Your task to perform on an android device: see tabs open on other devices in the chrome app Image 0: 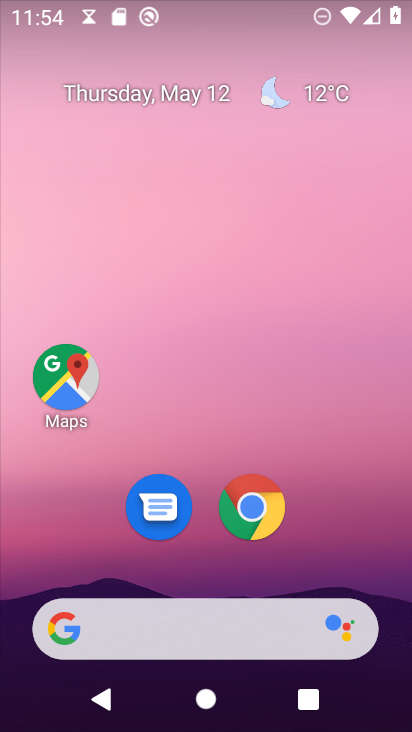
Step 0: click (257, 518)
Your task to perform on an android device: see tabs open on other devices in the chrome app Image 1: 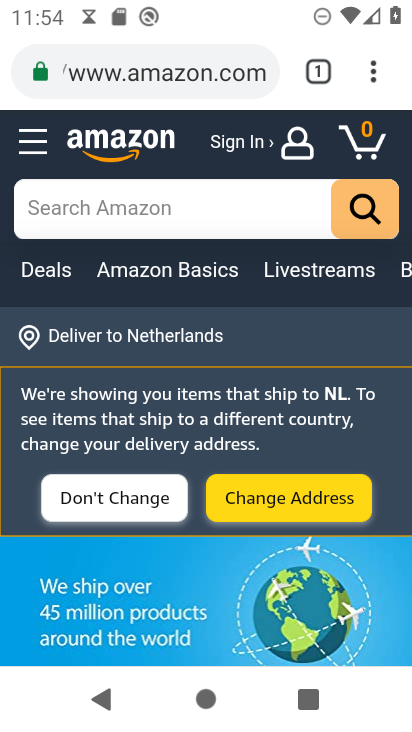
Step 1: drag from (370, 77) to (226, 348)
Your task to perform on an android device: see tabs open on other devices in the chrome app Image 2: 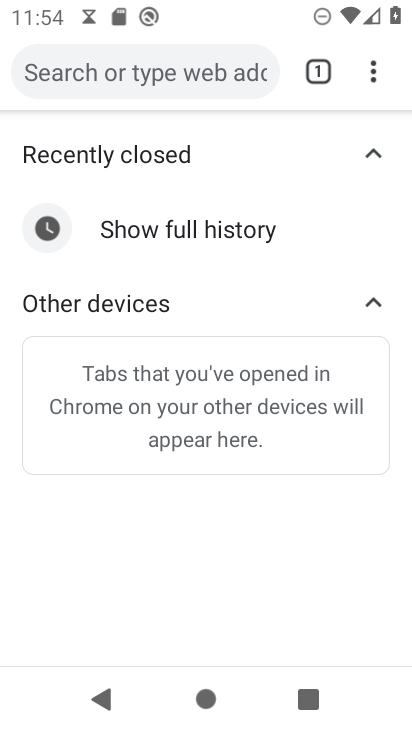
Step 2: click (209, 226)
Your task to perform on an android device: see tabs open on other devices in the chrome app Image 3: 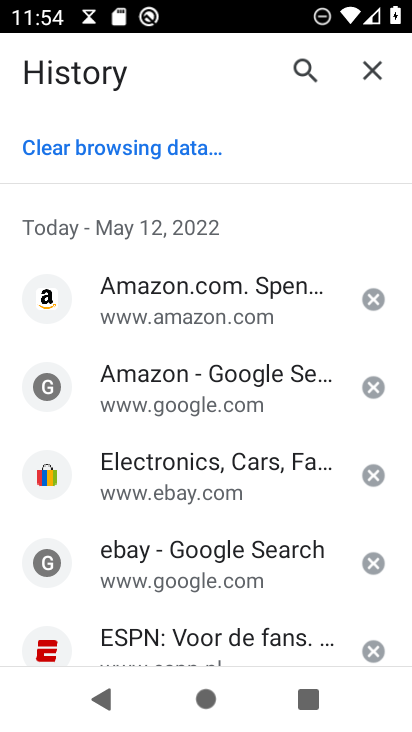
Step 3: task complete